Your task to perform on an android device: open app "Duolingo: language lessons" (install if not already installed) and go to login screen Image 0: 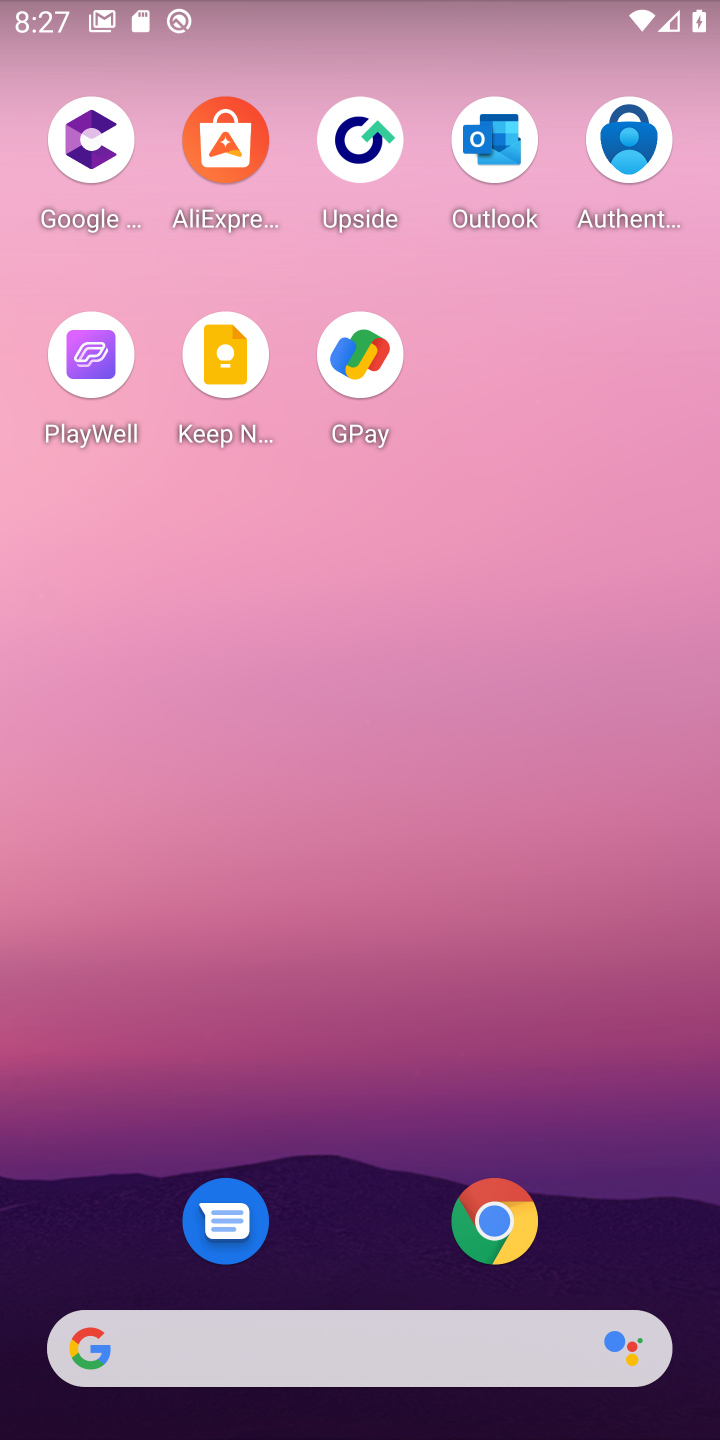
Step 0: drag from (353, 1210) to (605, 1295)
Your task to perform on an android device: open app "Duolingo: language lessons" (install if not already installed) and go to login screen Image 1: 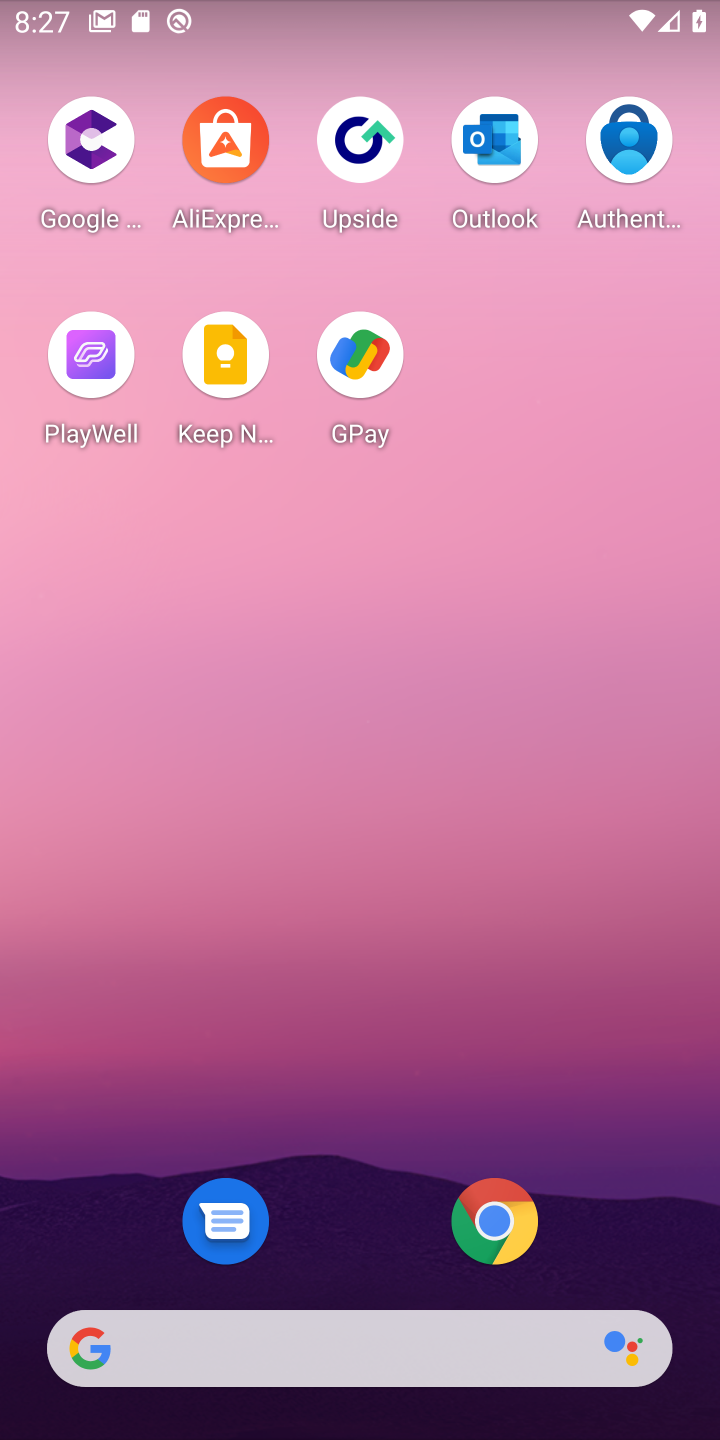
Step 1: drag from (358, 1294) to (402, 182)
Your task to perform on an android device: open app "Duolingo: language lessons" (install if not already installed) and go to login screen Image 2: 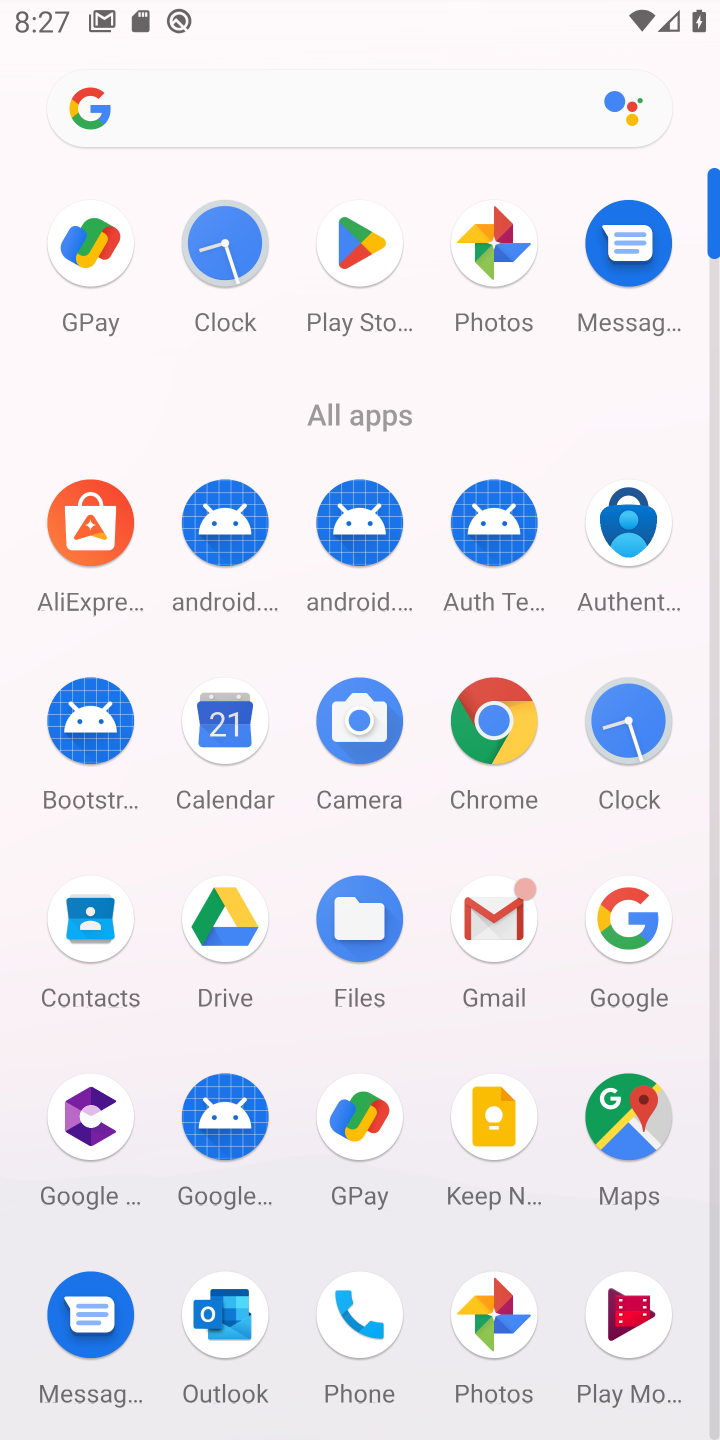
Step 2: click (357, 240)
Your task to perform on an android device: open app "Duolingo: language lessons" (install if not already installed) and go to login screen Image 3: 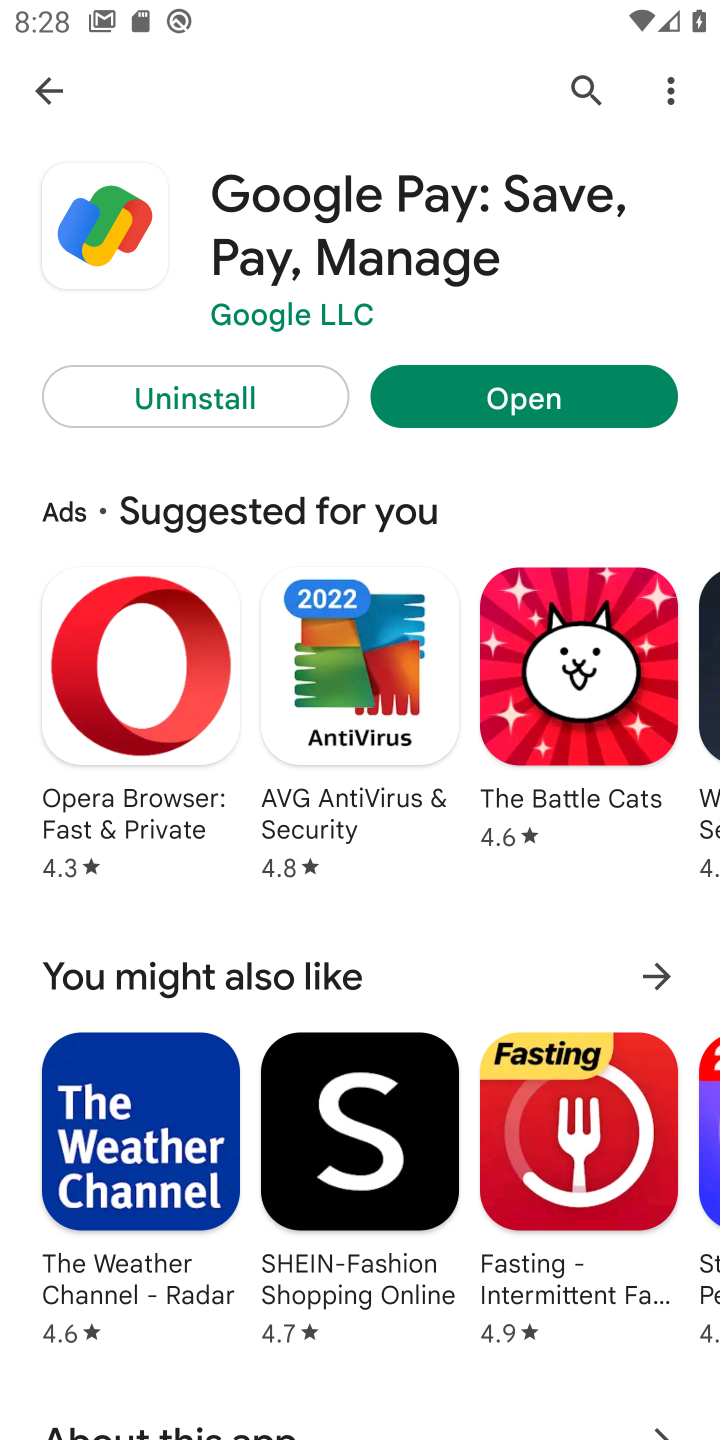
Step 3: click (578, 84)
Your task to perform on an android device: open app "Duolingo: language lessons" (install if not already installed) and go to login screen Image 4: 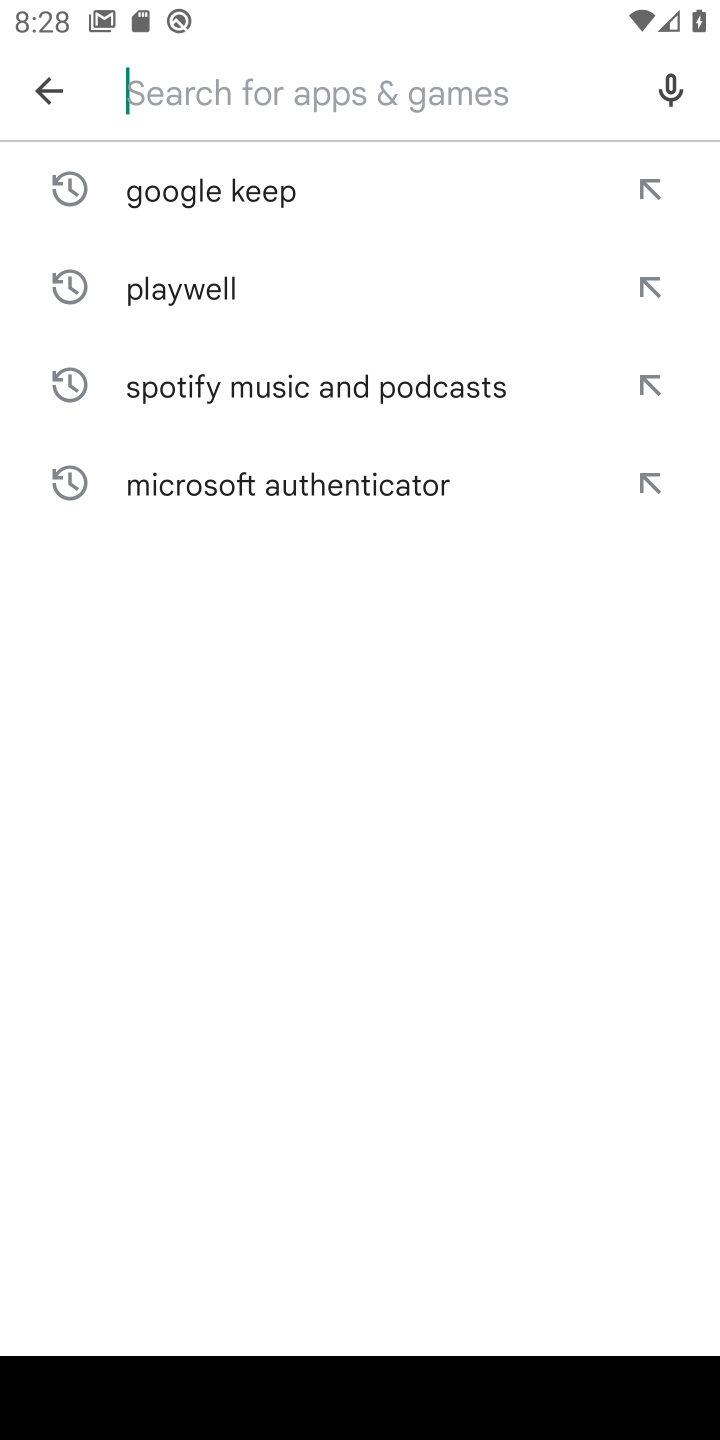
Step 4: type "Duolingo: language lessons"
Your task to perform on an android device: open app "Duolingo: language lessons" (install if not already installed) and go to login screen Image 5: 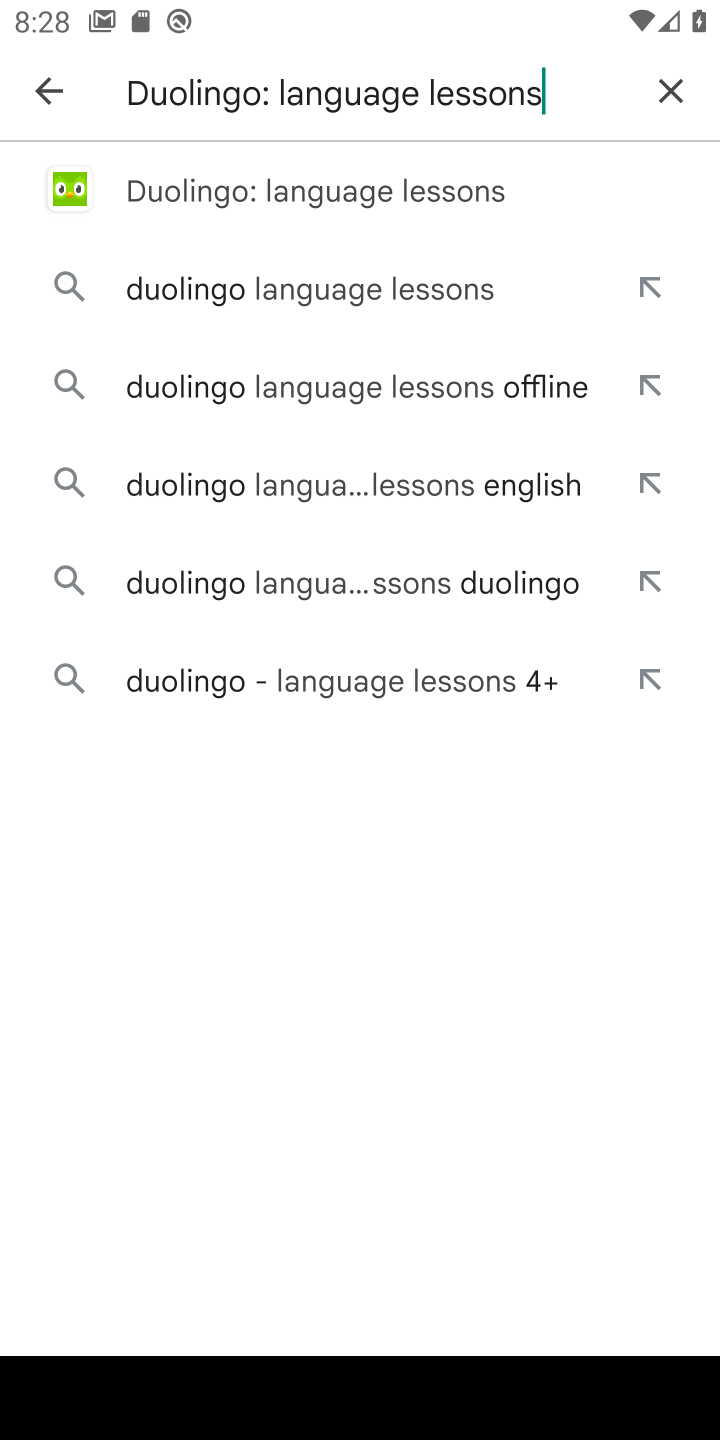
Step 5: click (199, 185)
Your task to perform on an android device: open app "Duolingo: language lessons" (install if not already installed) and go to login screen Image 6: 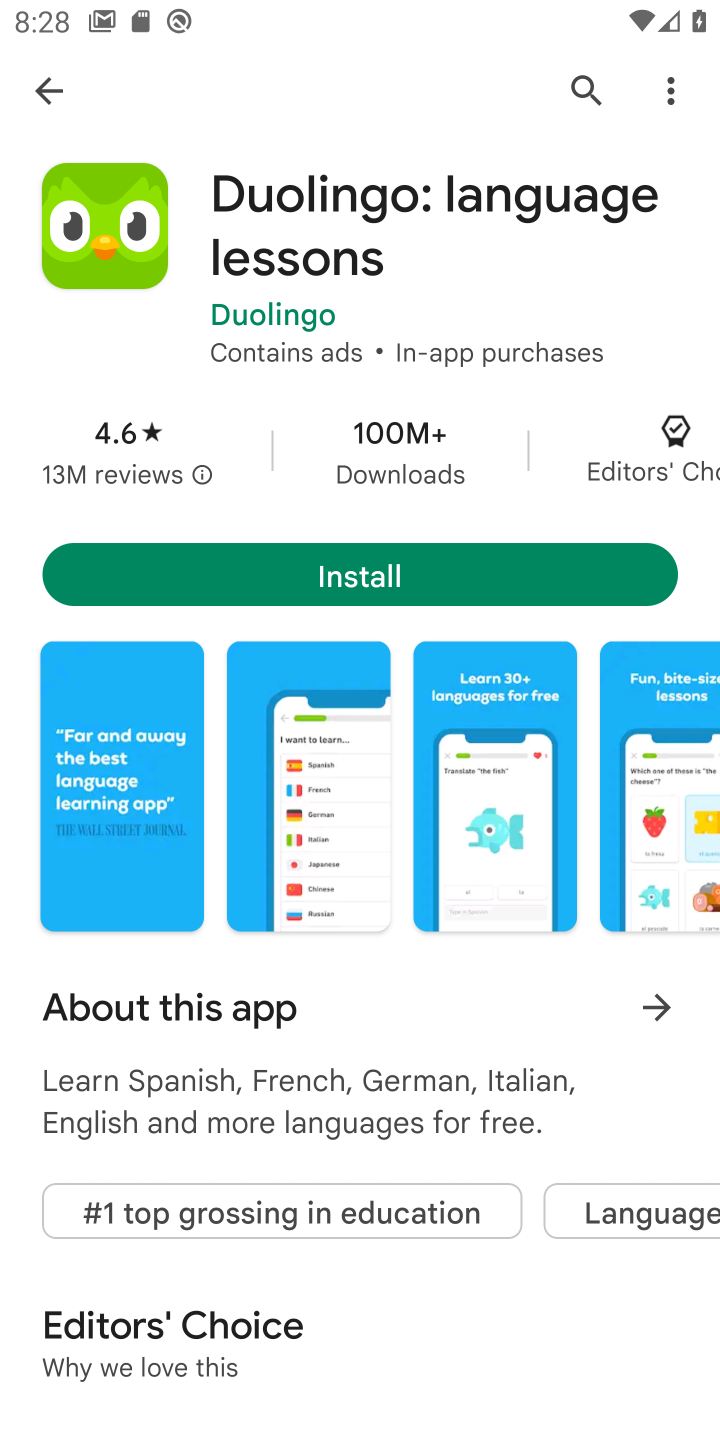
Step 6: click (377, 573)
Your task to perform on an android device: open app "Duolingo: language lessons" (install if not already installed) and go to login screen Image 7: 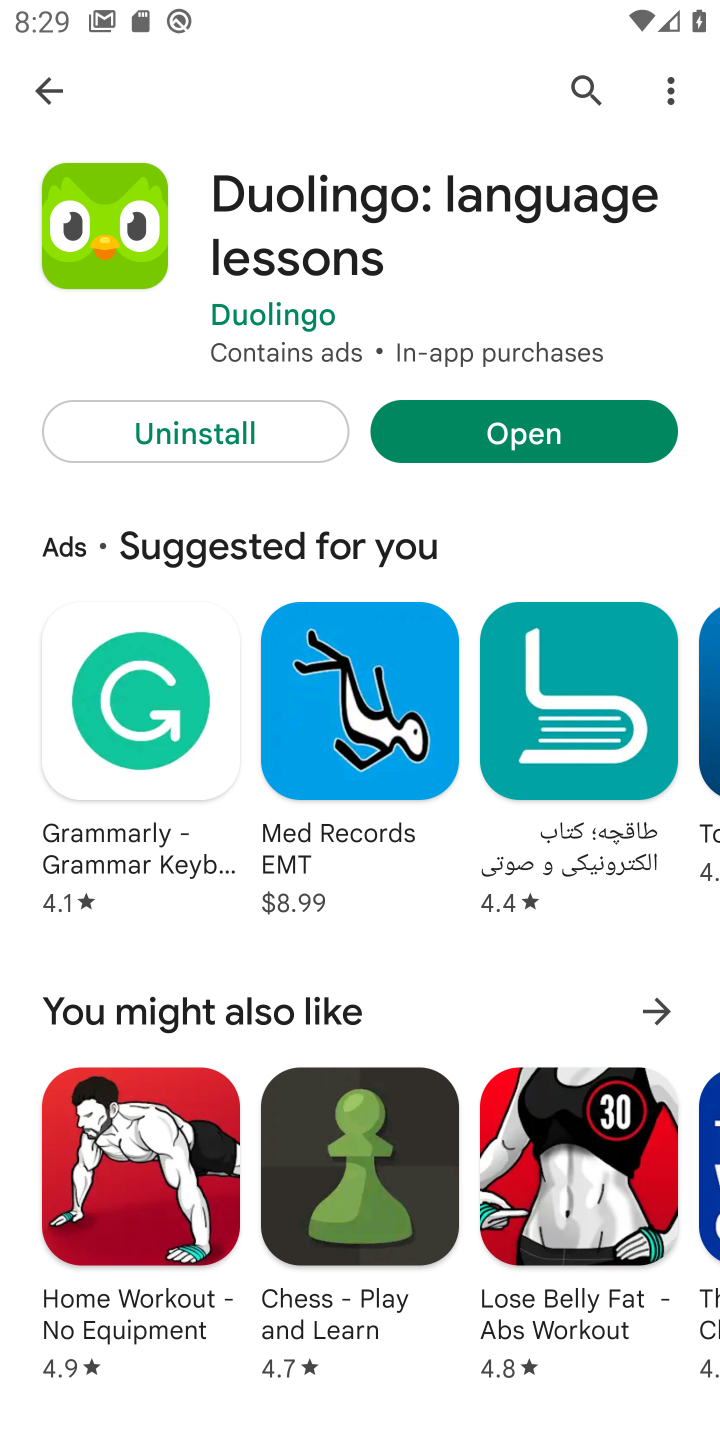
Step 7: click (502, 440)
Your task to perform on an android device: open app "Duolingo: language lessons" (install if not already installed) and go to login screen Image 8: 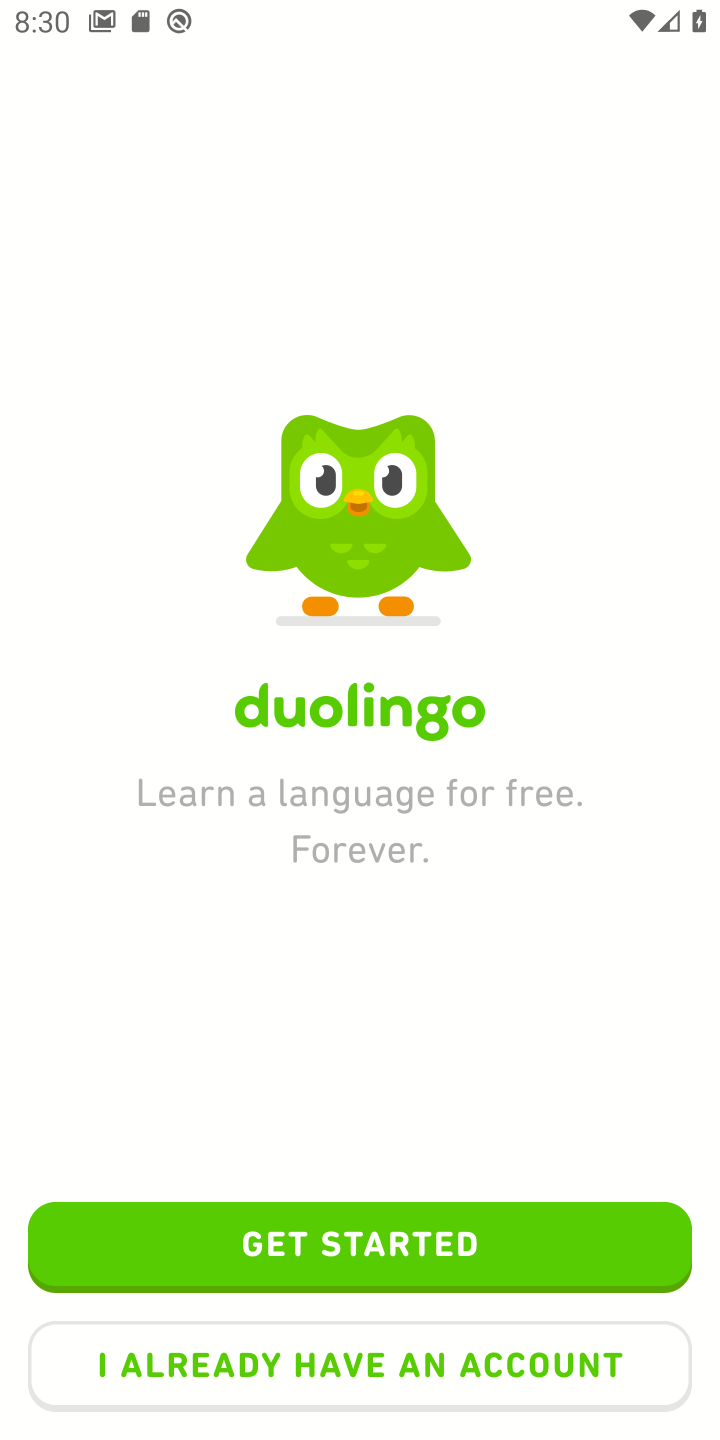
Step 8: click (387, 1362)
Your task to perform on an android device: open app "Duolingo: language lessons" (install if not already installed) and go to login screen Image 9: 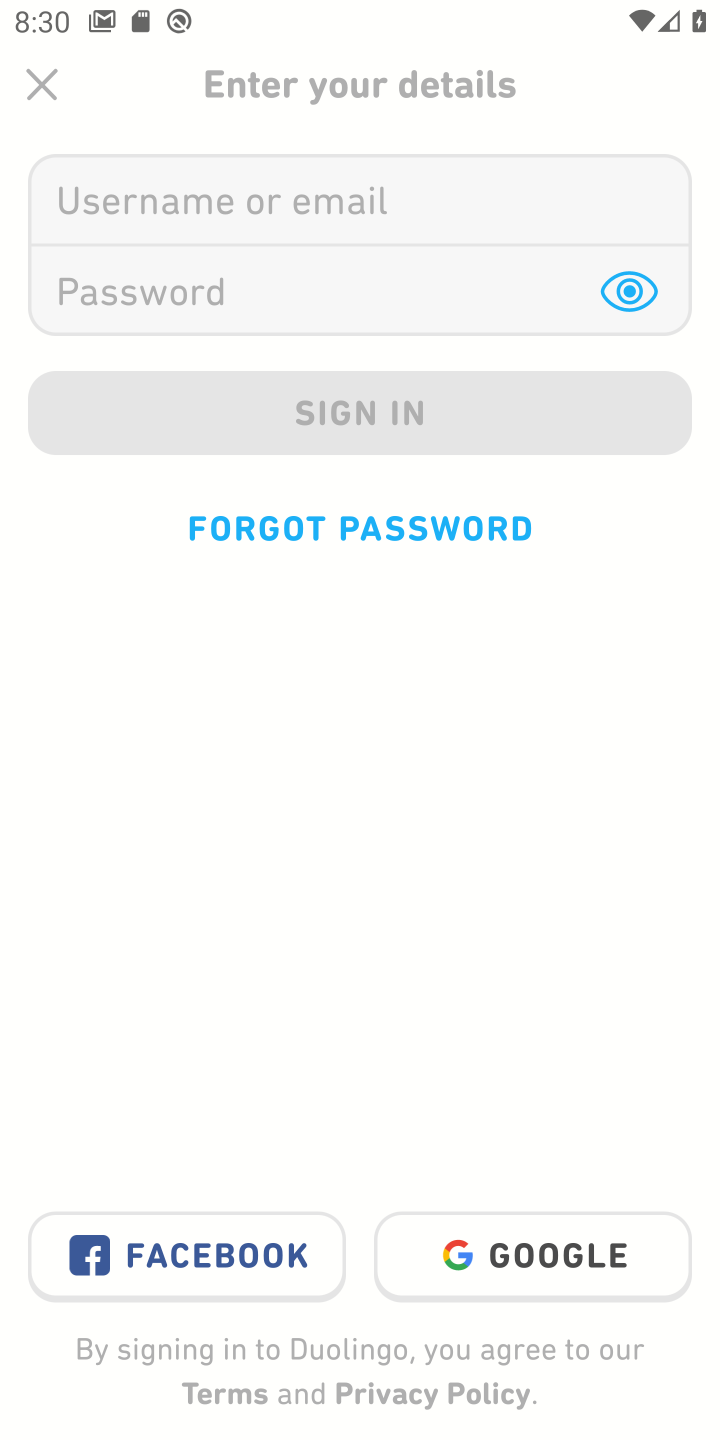
Step 9: task complete